Your task to perform on an android device: turn on the 12-hour format for clock Image 0: 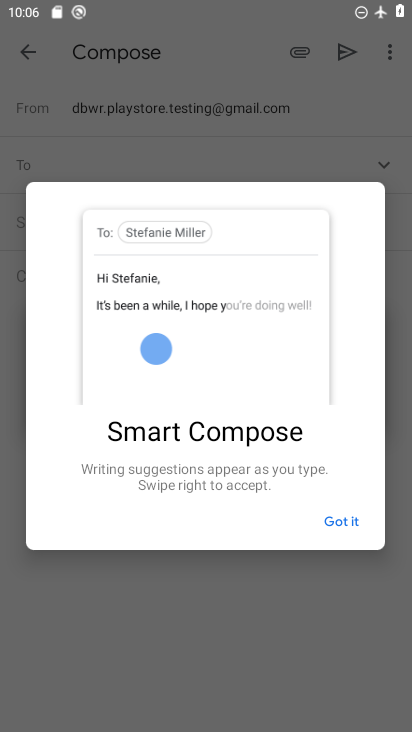
Step 0: press home button
Your task to perform on an android device: turn on the 12-hour format for clock Image 1: 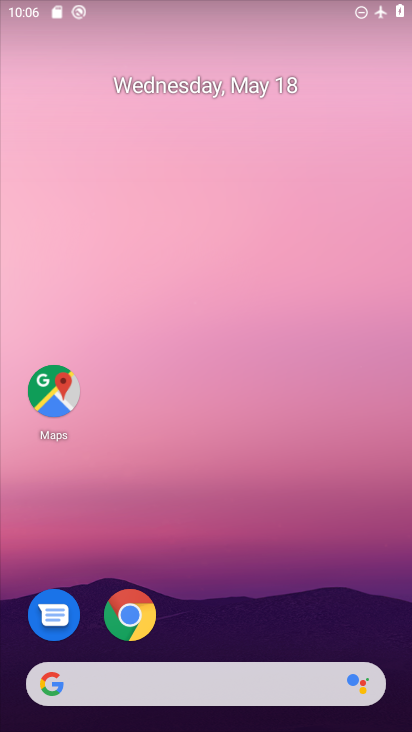
Step 1: drag from (236, 622) to (297, 105)
Your task to perform on an android device: turn on the 12-hour format for clock Image 2: 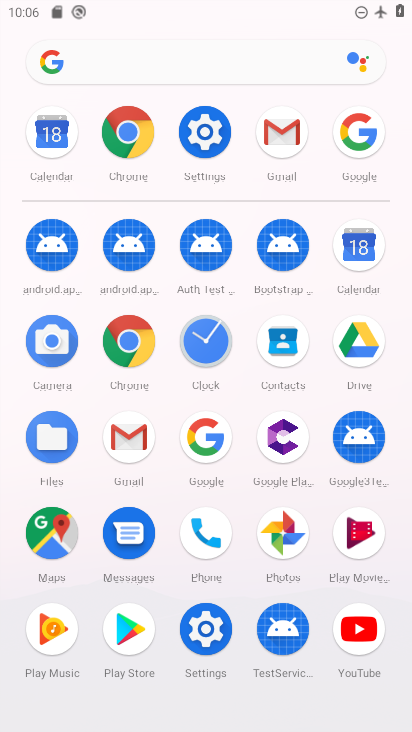
Step 2: click (206, 340)
Your task to perform on an android device: turn on the 12-hour format for clock Image 3: 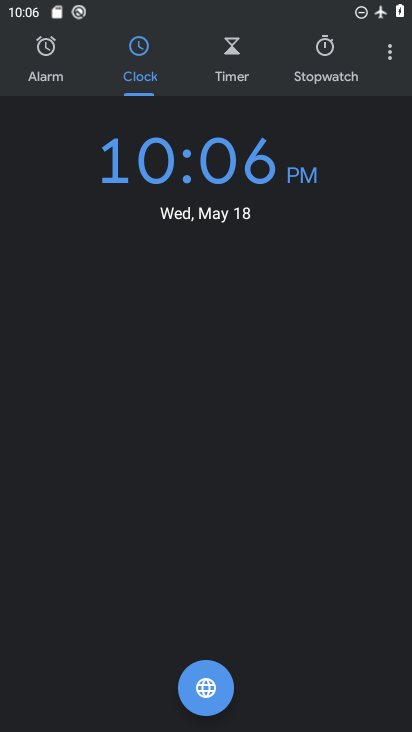
Step 3: click (386, 57)
Your task to perform on an android device: turn on the 12-hour format for clock Image 4: 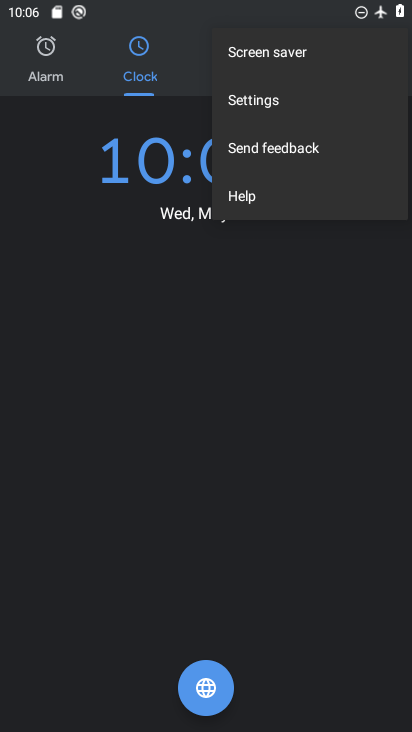
Step 4: click (282, 100)
Your task to perform on an android device: turn on the 12-hour format for clock Image 5: 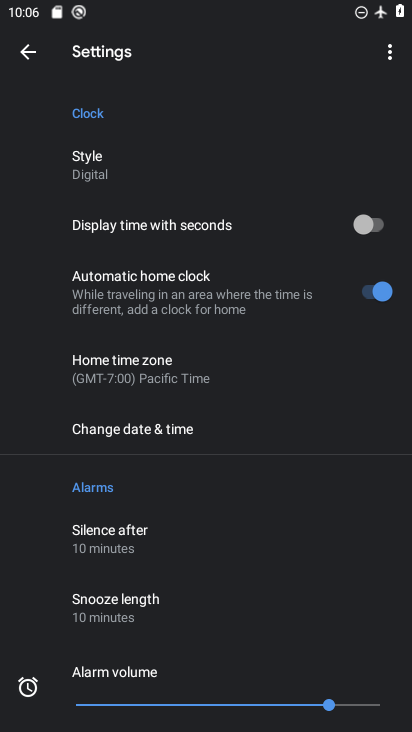
Step 5: click (152, 437)
Your task to perform on an android device: turn on the 12-hour format for clock Image 6: 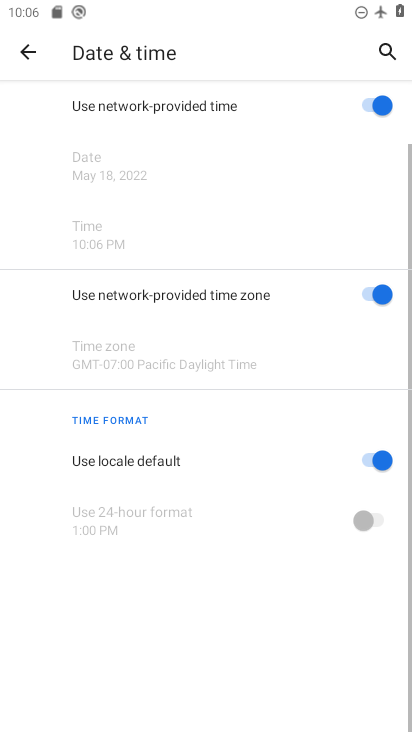
Step 6: task complete